Your task to perform on an android device: Open Chrome and go to settings Image 0: 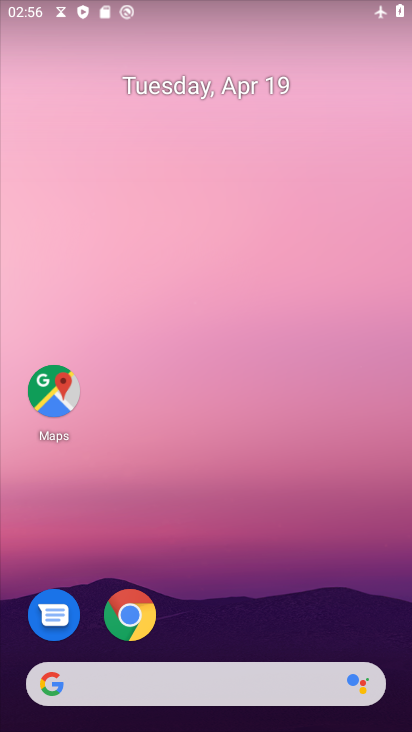
Step 0: drag from (214, 650) to (250, 327)
Your task to perform on an android device: Open Chrome and go to settings Image 1: 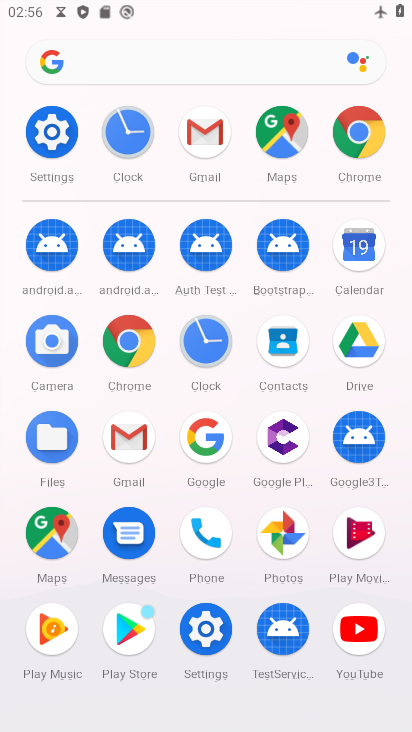
Step 1: click (120, 339)
Your task to perform on an android device: Open Chrome and go to settings Image 2: 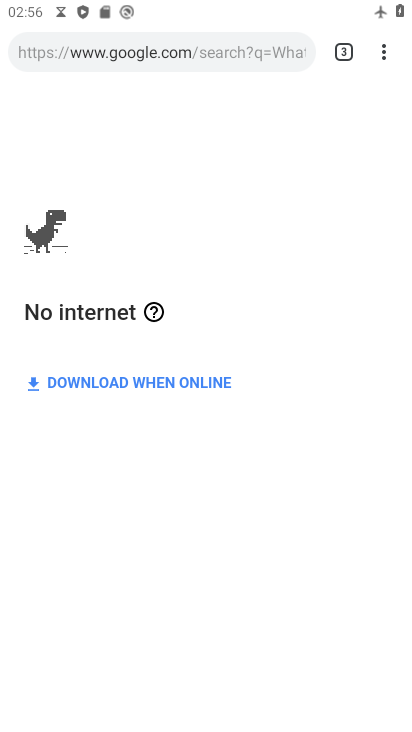
Step 2: click (385, 46)
Your task to perform on an android device: Open Chrome and go to settings Image 3: 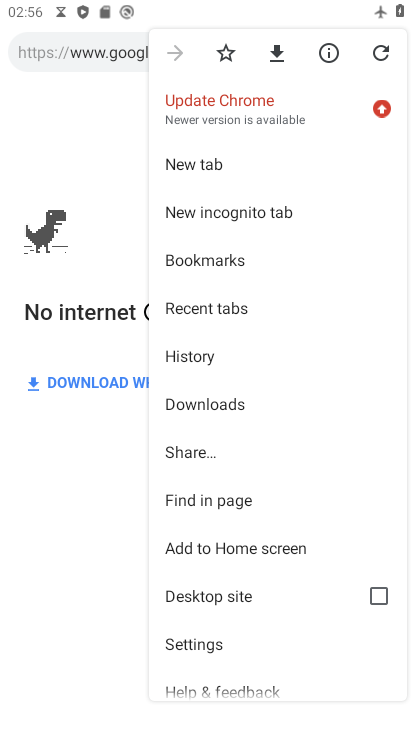
Step 3: click (203, 641)
Your task to perform on an android device: Open Chrome and go to settings Image 4: 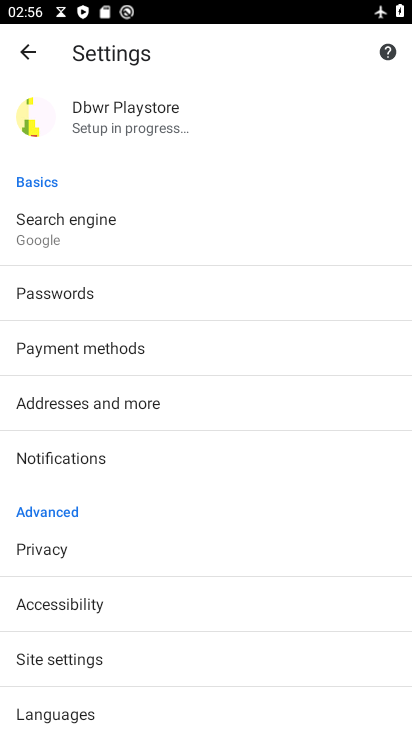
Step 4: task complete